Your task to perform on an android device: Clear all items from cart on costco.com. Add "alienware aurora" to the cart on costco.com, then select checkout. Image 0: 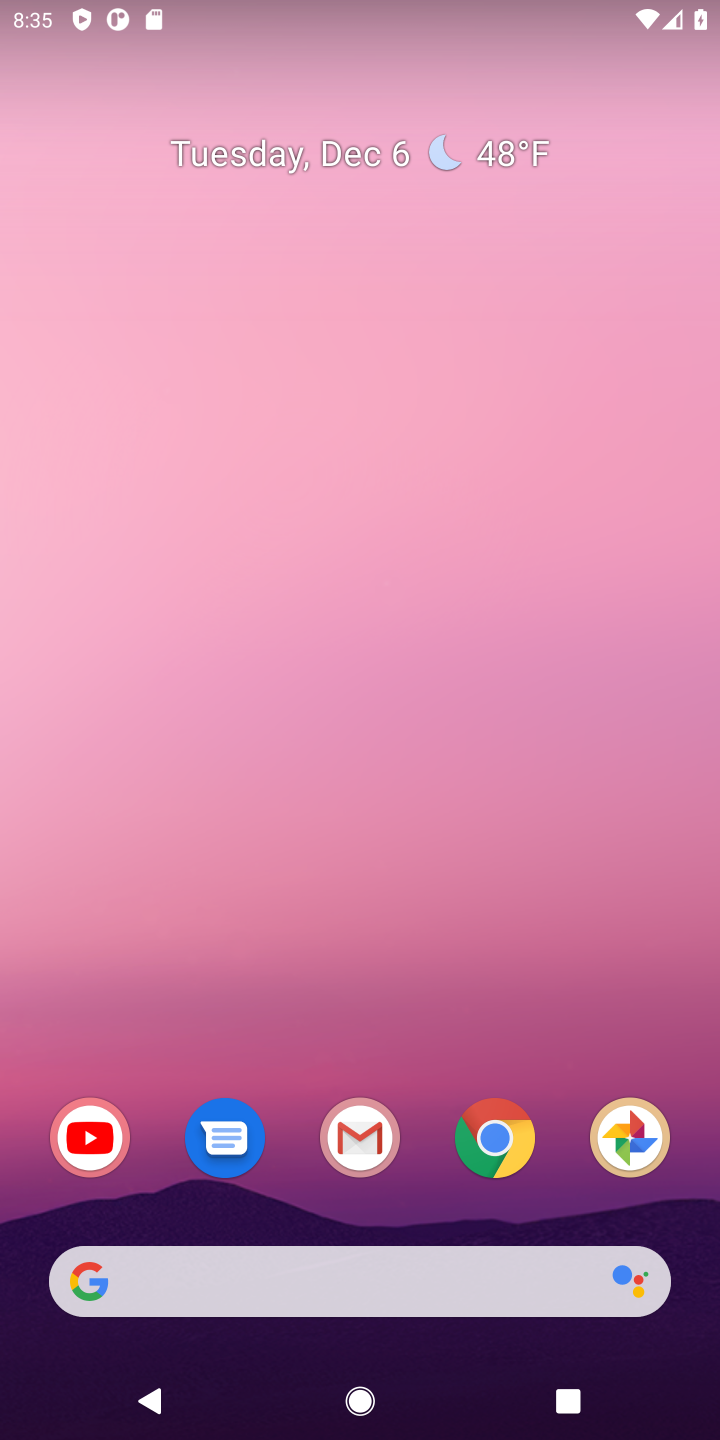
Step 0: click (497, 1155)
Your task to perform on an android device: Clear all items from cart on costco.com. Add "alienware aurora" to the cart on costco.com, then select checkout. Image 1: 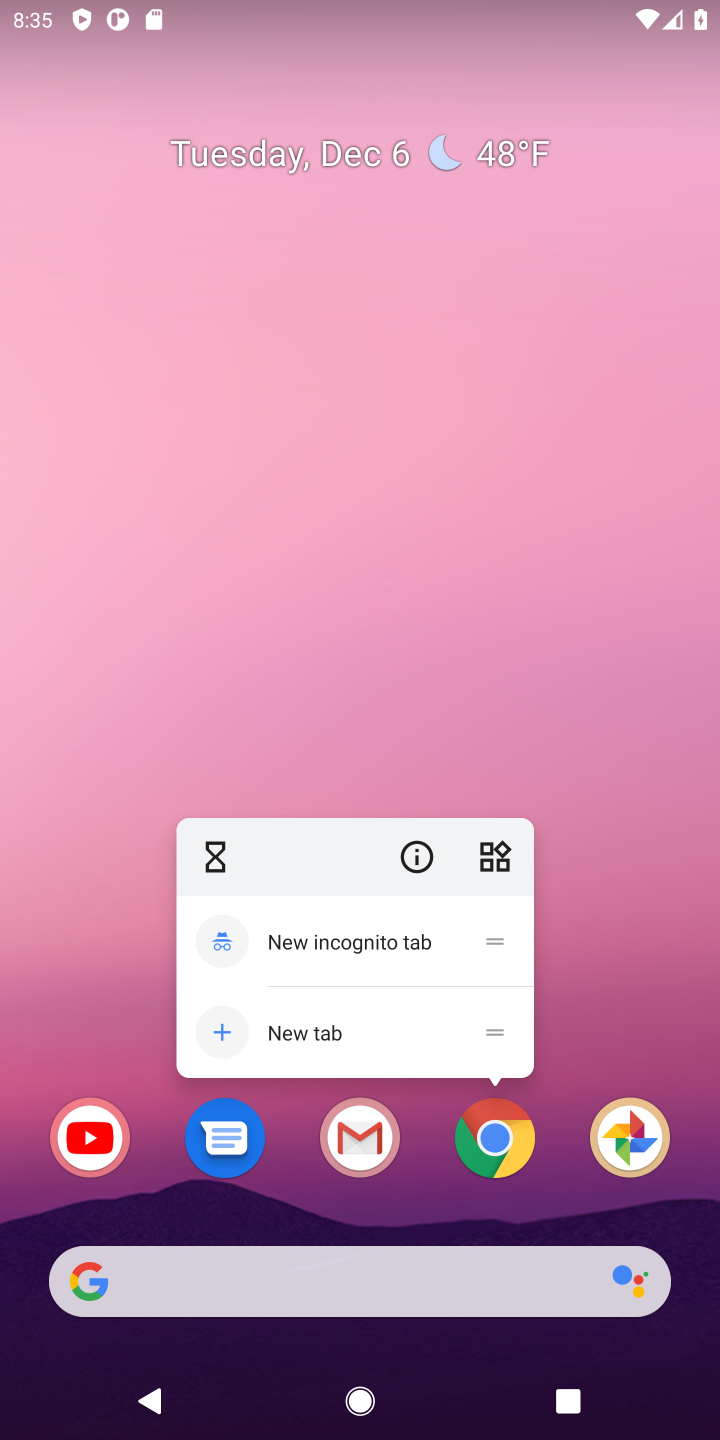
Step 1: click (497, 1141)
Your task to perform on an android device: Clear all items from cart on costco.com. Add "alienware aurora" to the cart on costco.com, then select checkout. Image 2: 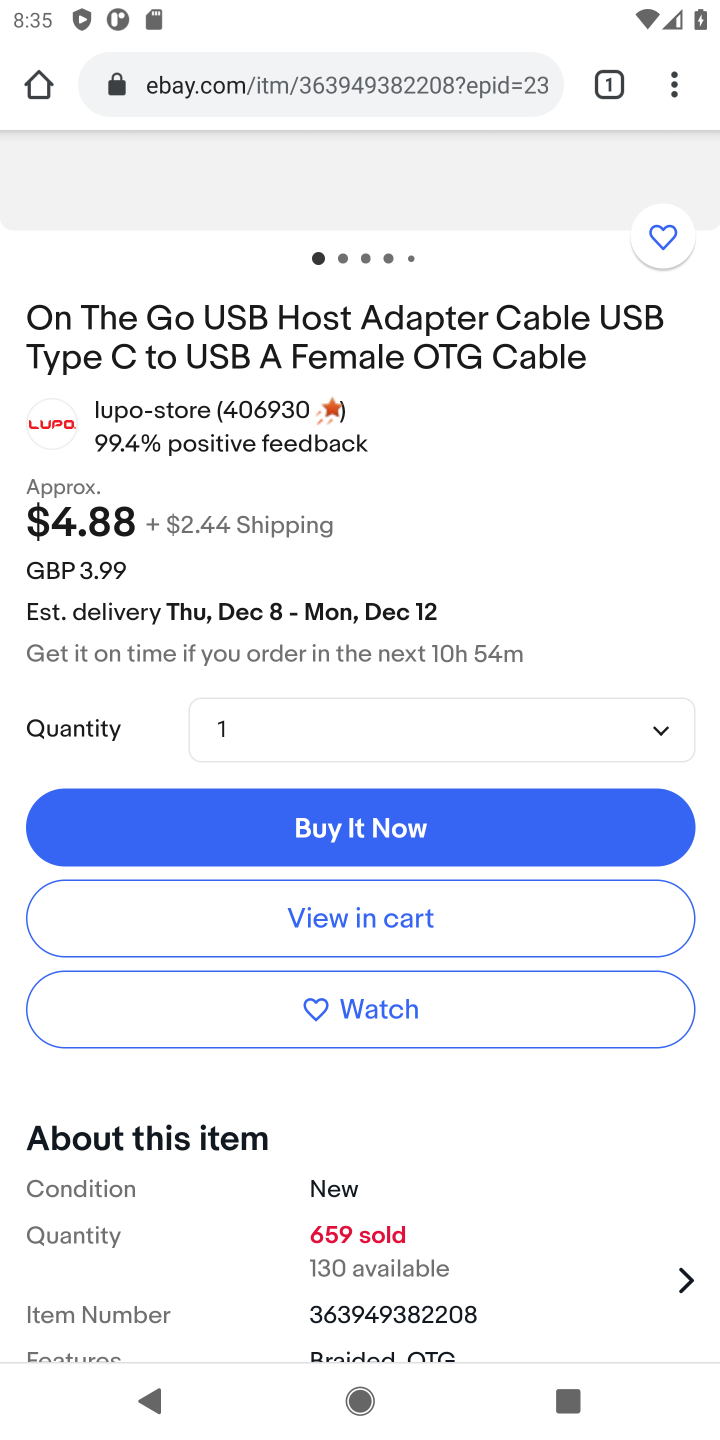
Step 2: click (278, 84)
Your task to perform on an android device: Clear all items from cart on costco.com. Add "alienware aurora" to the cart on costco.com, then select checkout. Image 3: 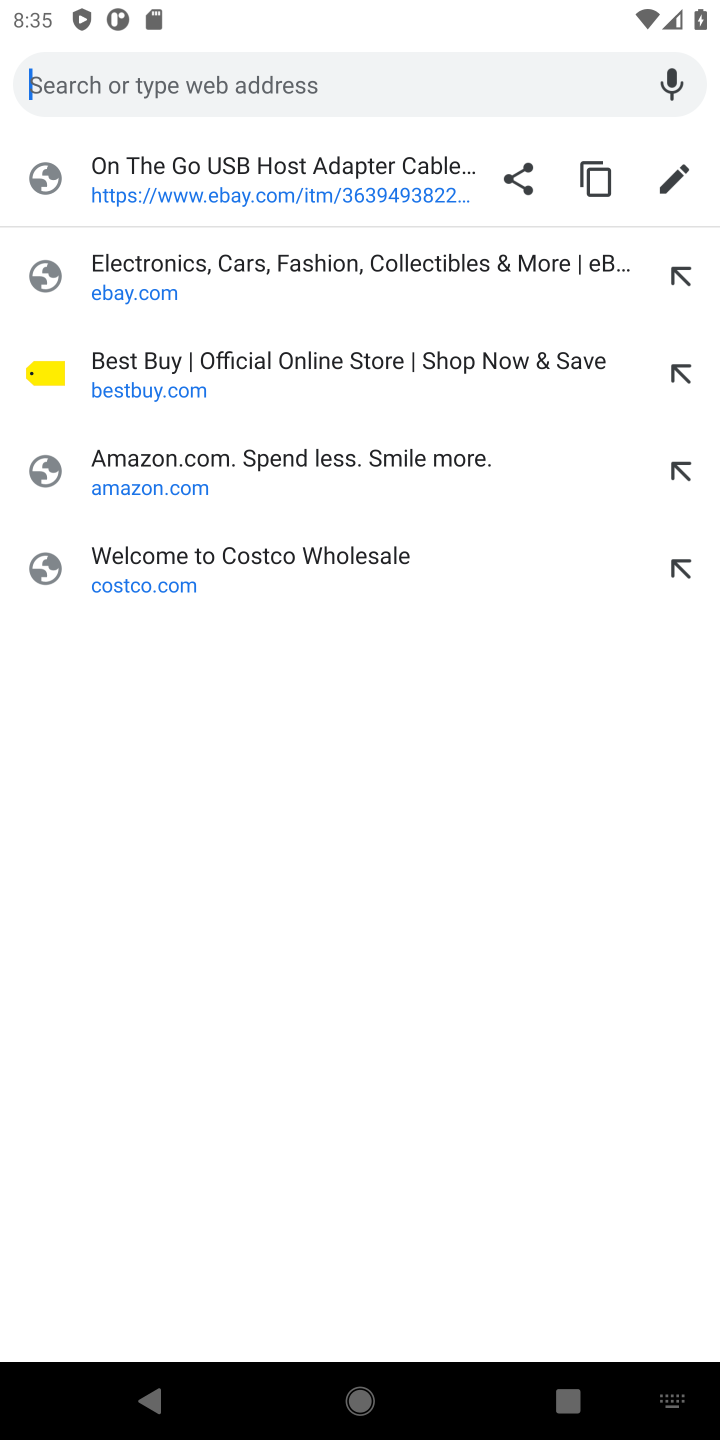
Step 3: click (143, 572)
Your task to perform on an android device: Clear all items from cart on costco.com. Add "alienware aurora" to the cart on costco.com, then select checkout. Image 4: 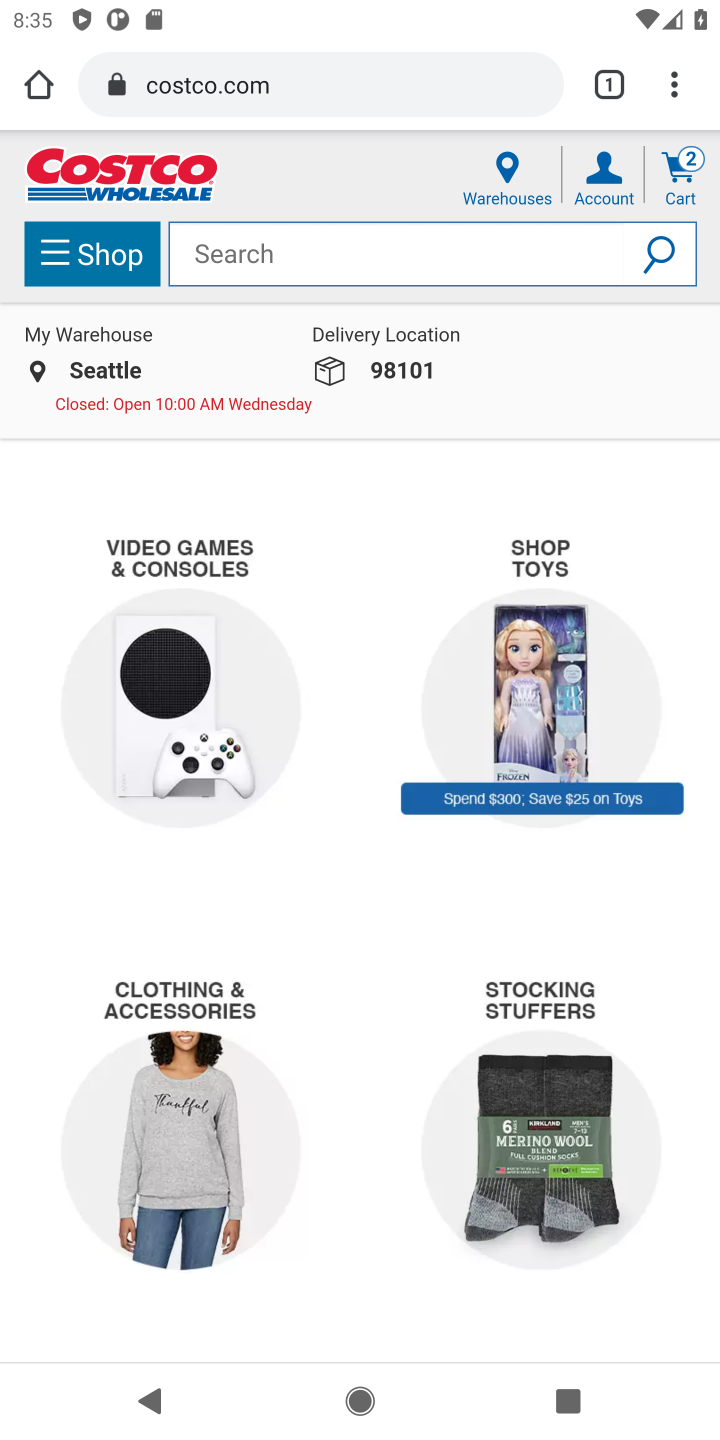
Step 4: click (675, 188)
Your task to perform on an android device: Clear all items from cart on costco.com. Add "alienware aurora" to the cart on costco.com, then select checkout. Image 5: 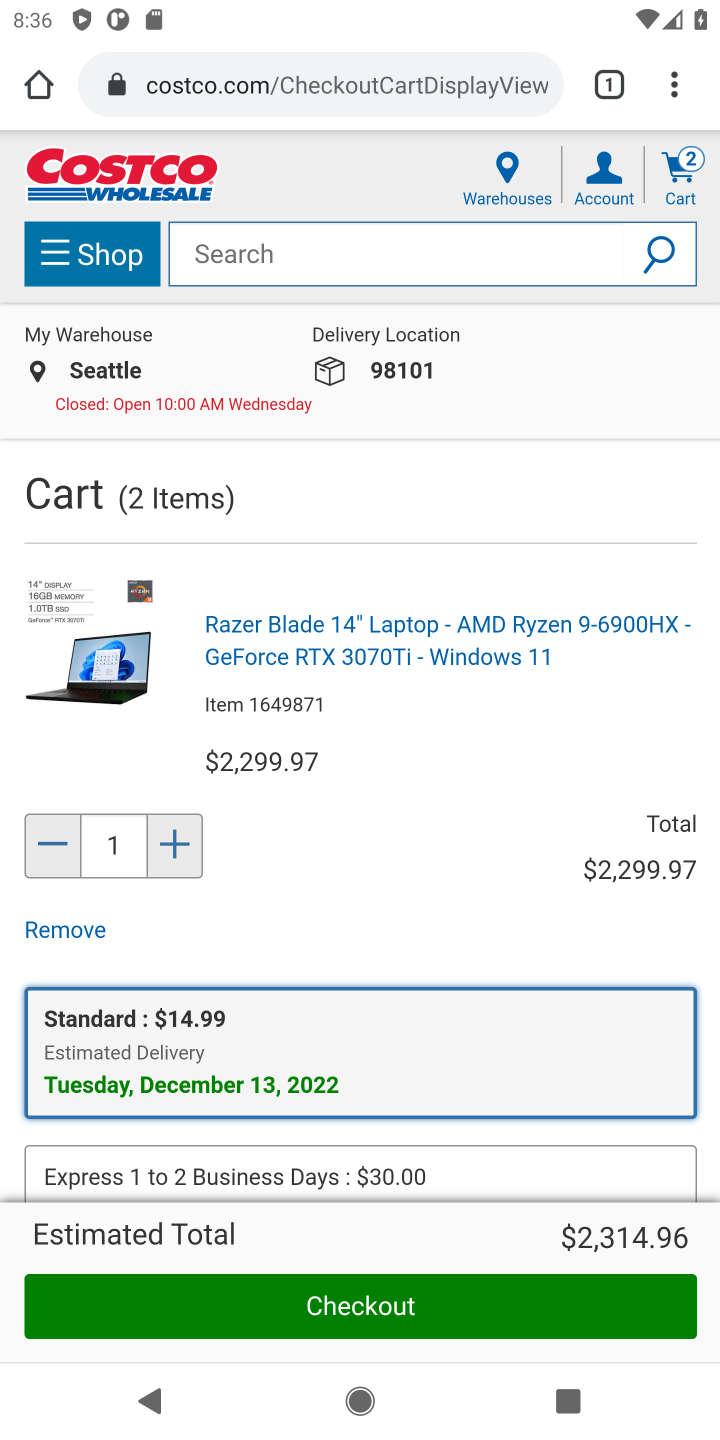
Step 5: drag from (419, 897) to (324, 450)
Your task to perform on an android device: Clear all items from cart on costco.com. Add "alienware aurora" to the cart on costco.com, then select checkout. Image 6: 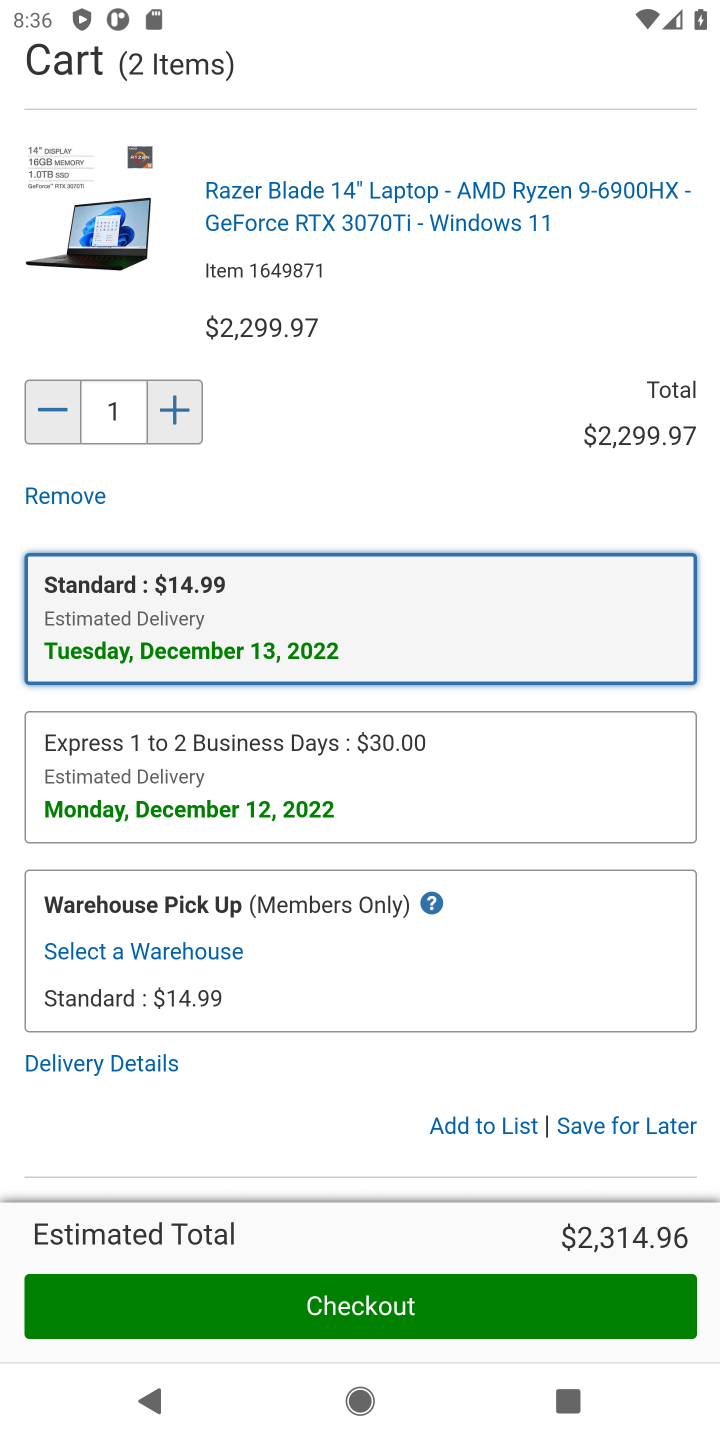
Step 6: click (588, 1128)
Your task to perform on an android device: Clear all items from cart on costco.com. Add "alienware aurora" to the cart on costco.com, then select checkout. Image 7: 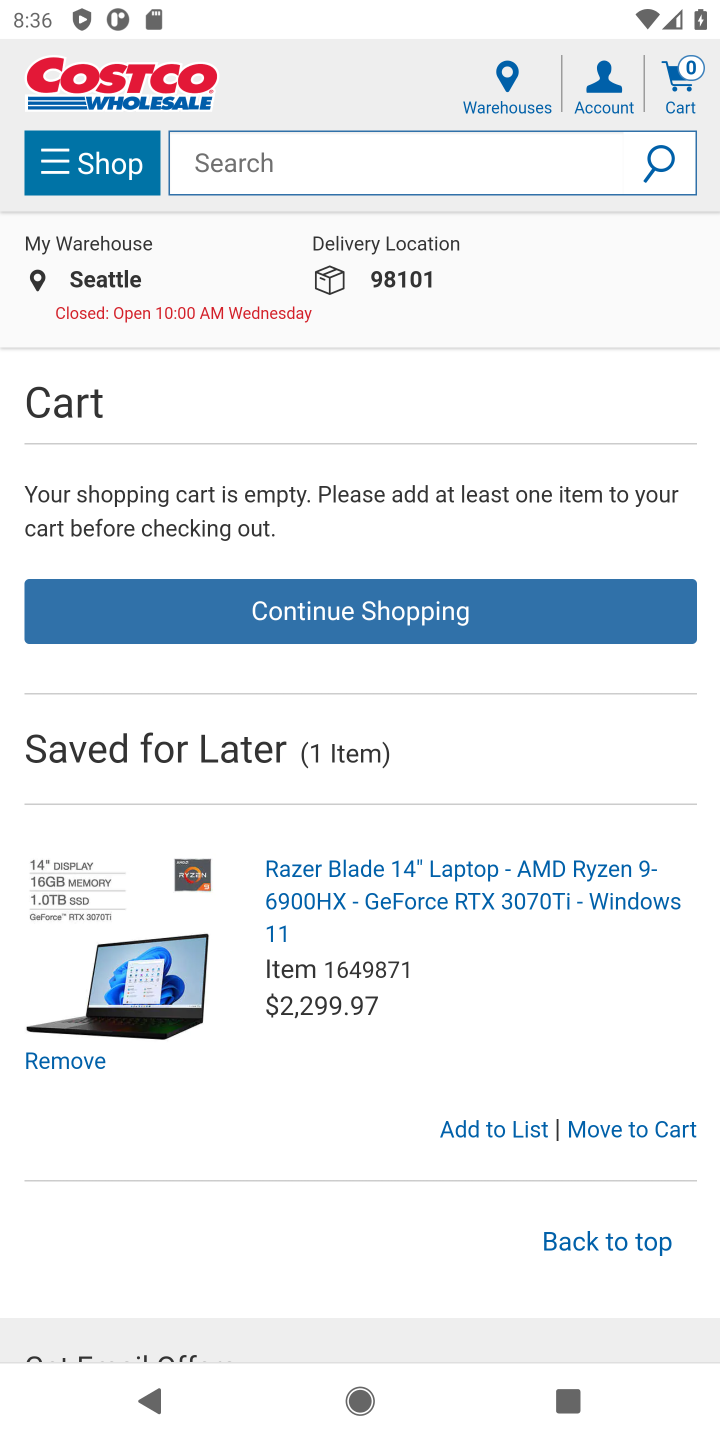
Step 7: click (216, 160)
Your task to perform on an android device: Clear all items from cart on costco.com. Add "alienware aurora" to the cart on costco.com, then select checkout. Image 8: 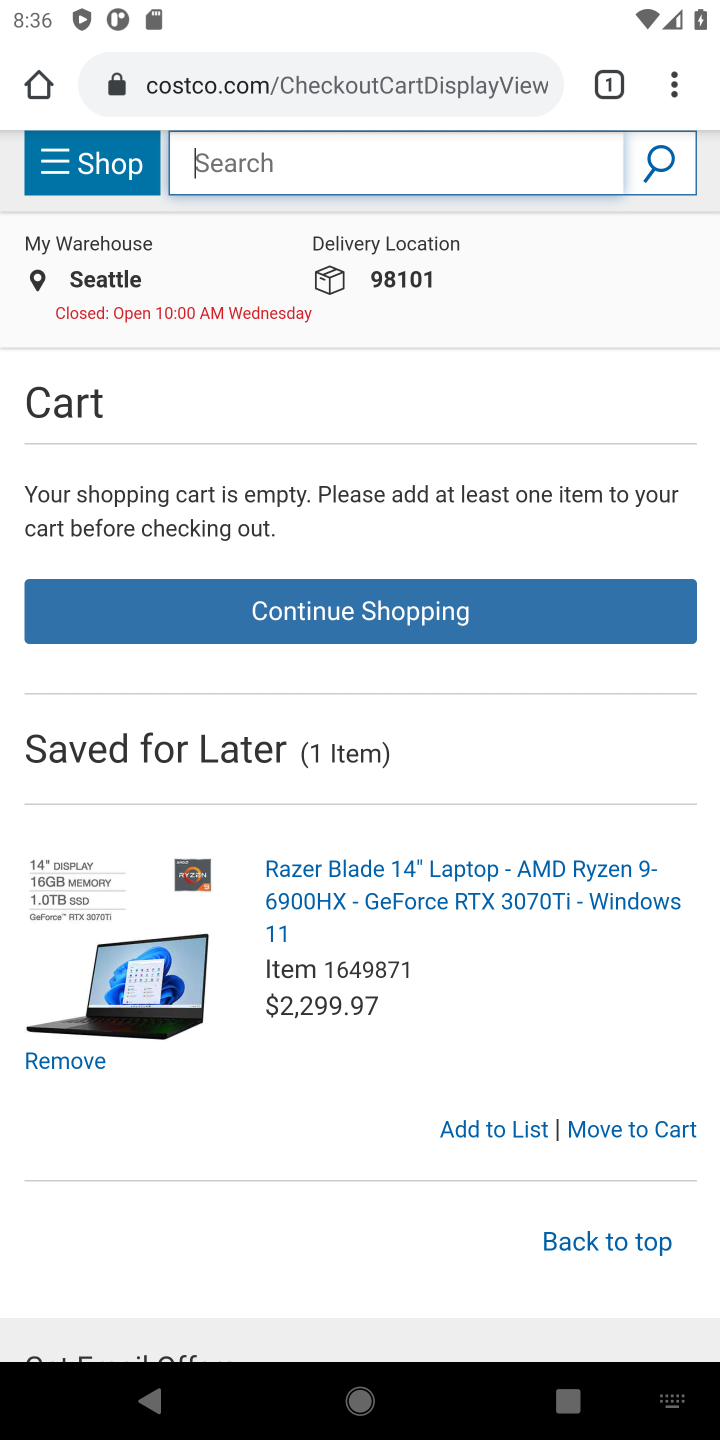
Step 8: type "alienware aurora"
Your task to perform on an android device: Clear all items from cart on costco.com. Add "alienware aurora" to the cart on costco.com, then select checkout. Image 9: 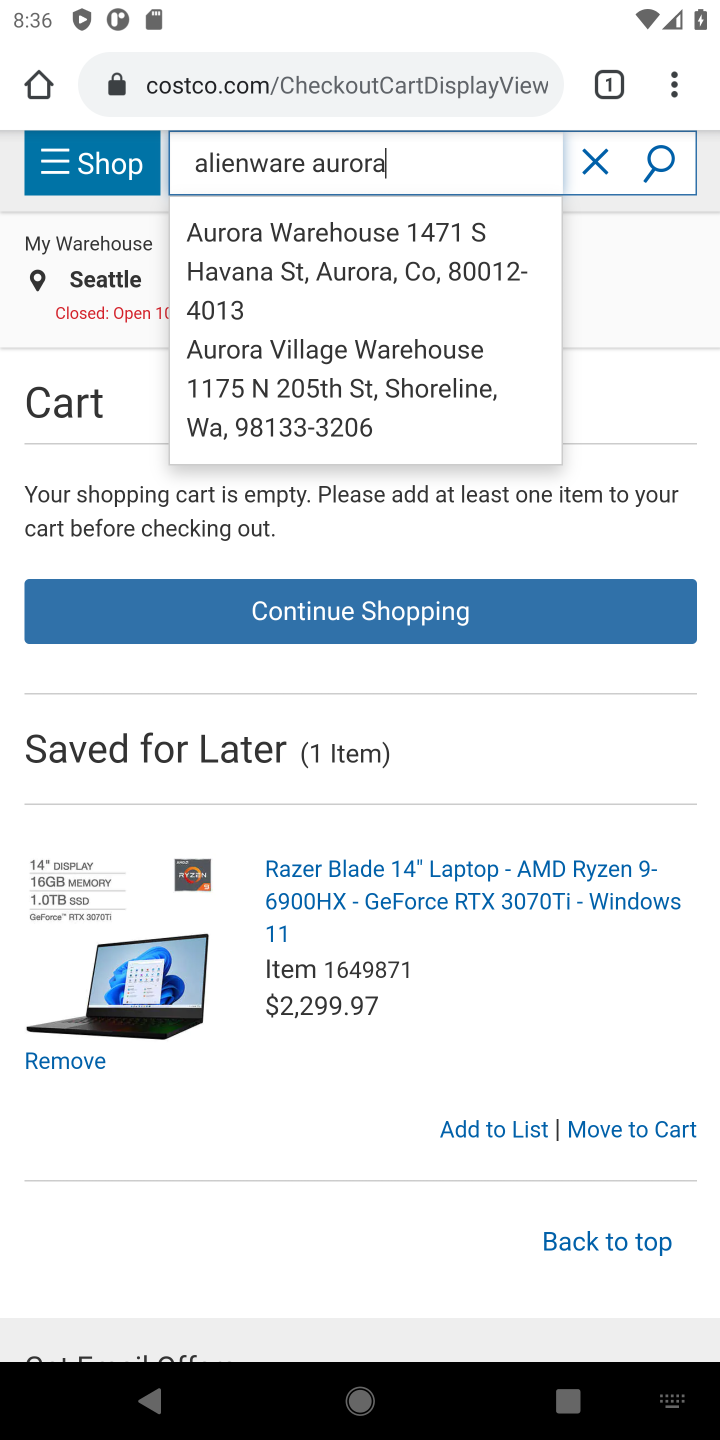
Step 9: click (678, 159)
Your task to perform on an android device: Clear all items from cart on costco.com. Add "alienware aurora" to the cart on costco.com, then select checkout. Image 10: 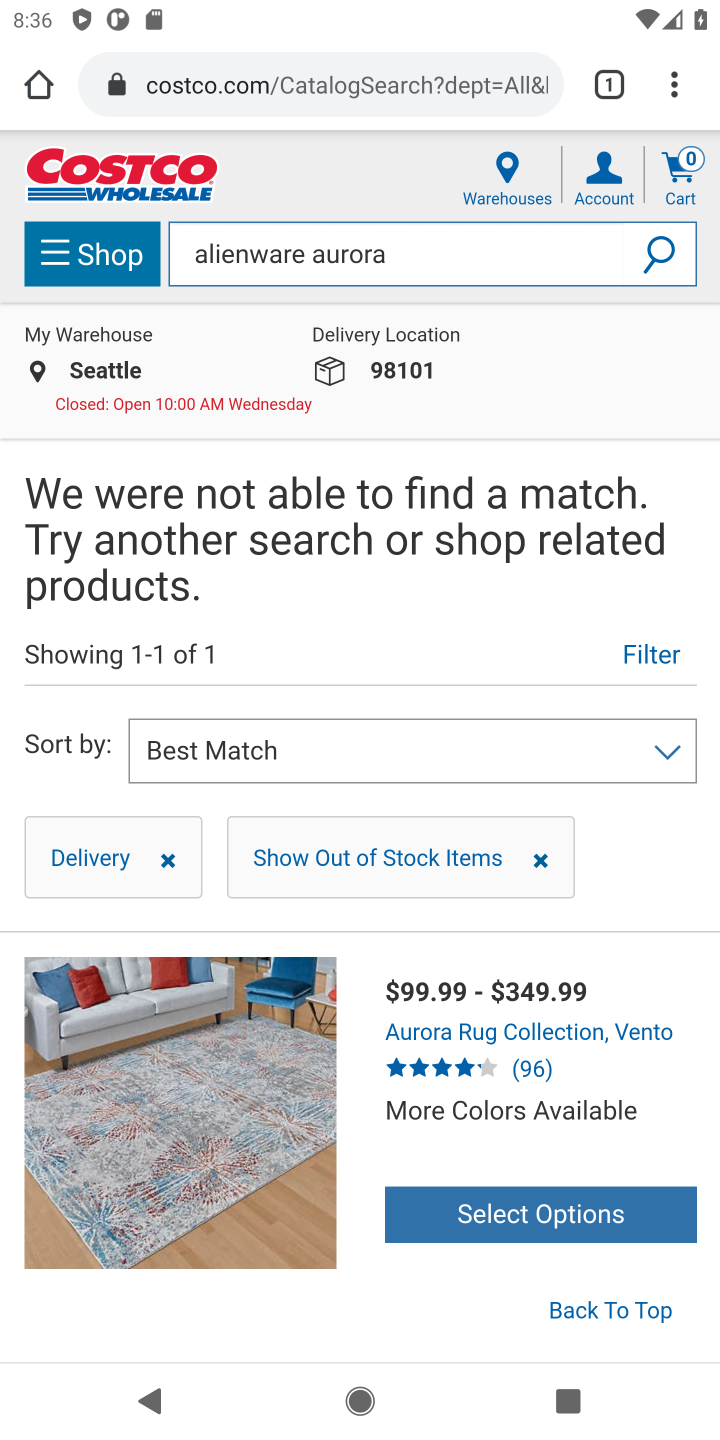
Step 10: task complete